Your task to perform on an android device: turn off priority inbox in the gmail app Image 0: 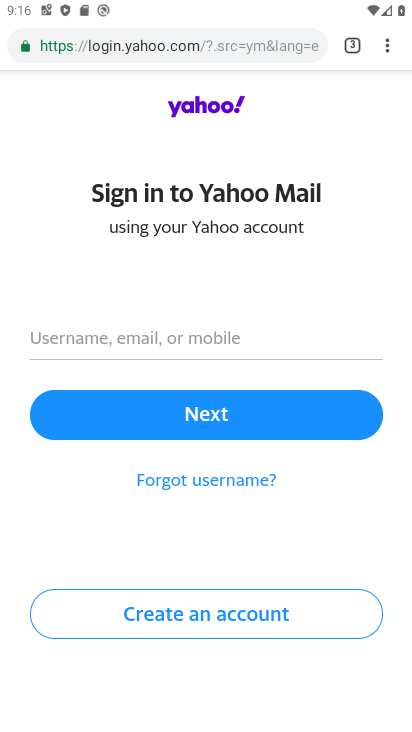
Step 0: press home button
Your task to perform on an android device: turn off priority inbox in the gmail app Image 1: 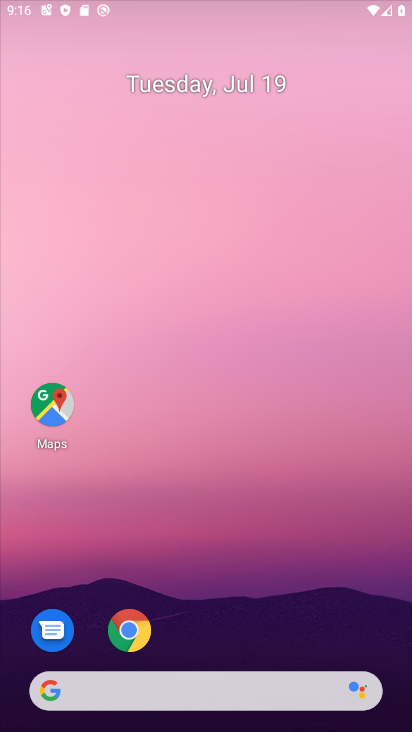
Step 1: drag from (215, 629) to (171, 72)
Your task to perform on an android device: turn off priority inbox in the gmail app Image 2: 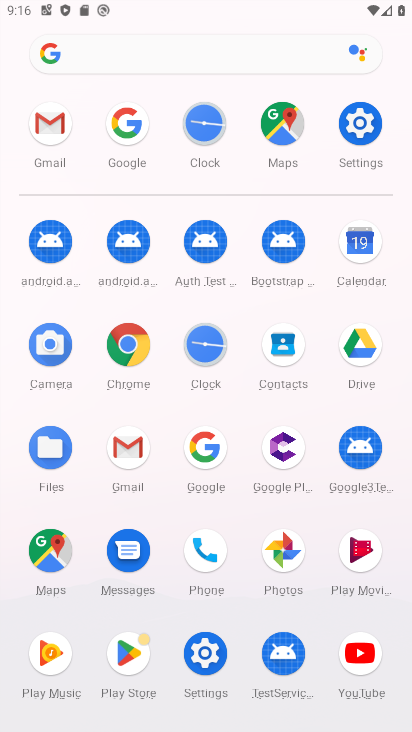
Step 2: click (41, 116)
Your task to perform on an android device: turn off priority inbox in the gmail app Image 3: 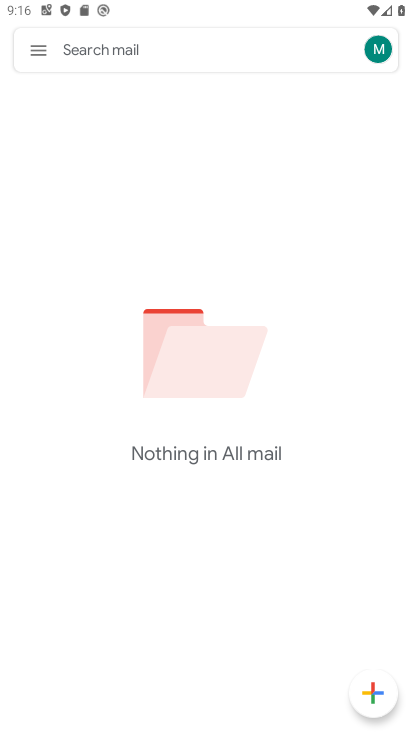
Step 3: click (37, 50)
Your task to perform on an android device: turn off priority inbox in the gmail app Image 4: 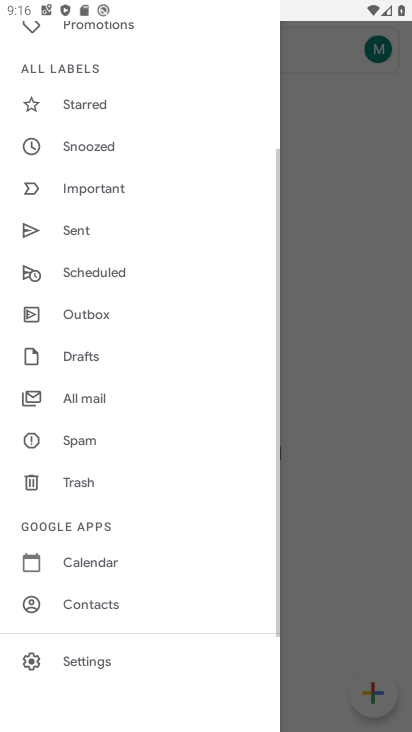
Step 4: click (91, 669)
Your task to perform on an android device: turn off priority inbox in the gmail app Image 5: 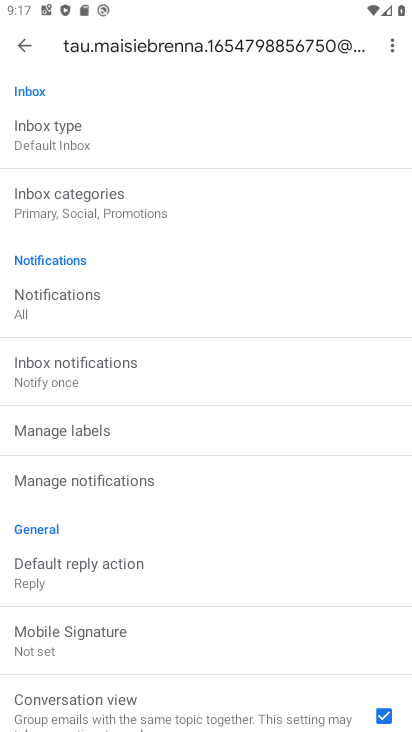
Step 5: click (48, 146)
Your task to perform on an android device: turn off priority inbox in the gmail app Image 6: 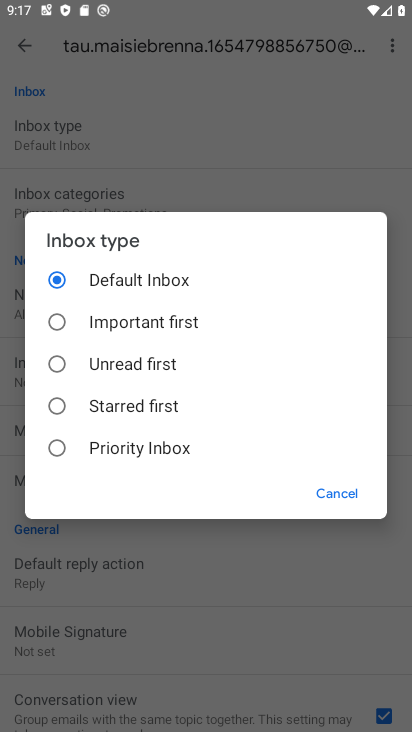
Step 6: task complete